Your task to perform on an android device: check android version Image 0: 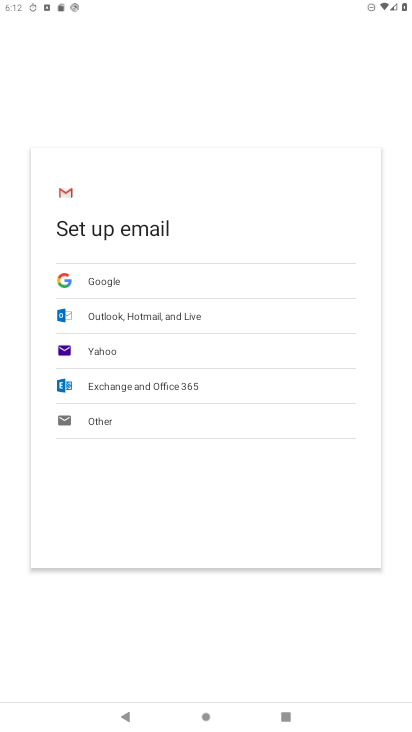
Step 0: press home button
Your task to perform on an android device: check android version Image 1: 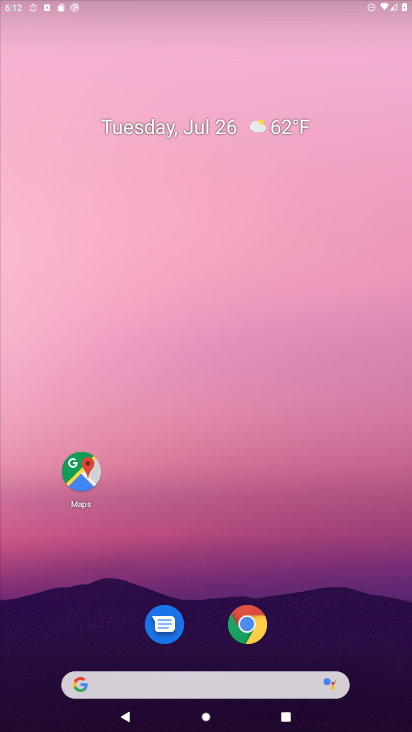
Step 1: drag from (231, 692) to (271, 20)
Your task to perform on an android device: check android version Image 2: 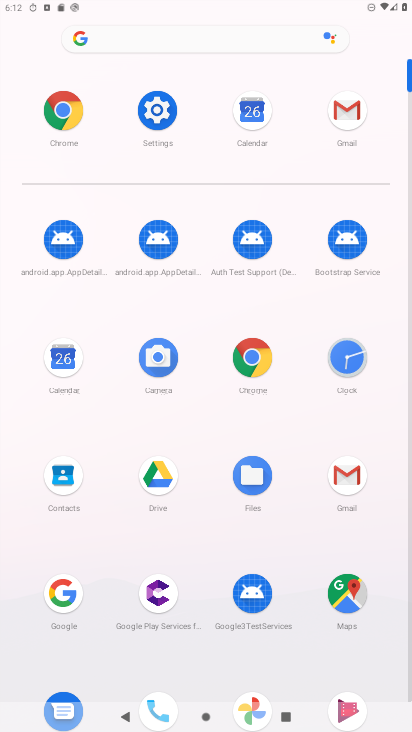
Step 2: click (160, 105)
Your task to perform on an android device: check android version Image 3: 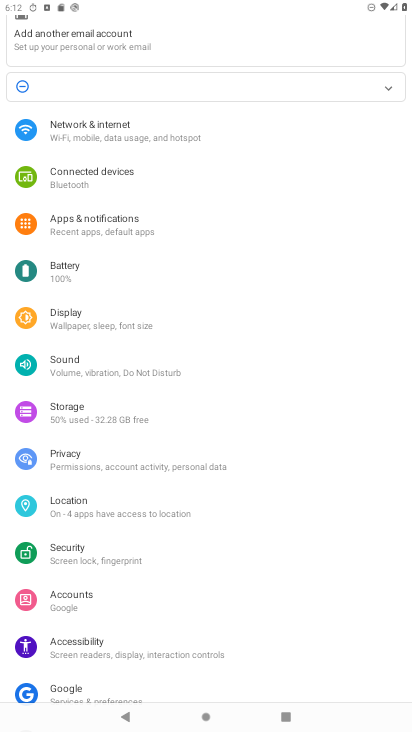
Step 3: drag from (199, 668) to (173, 82)
Your task to perform on an android device: check android version Image 4: 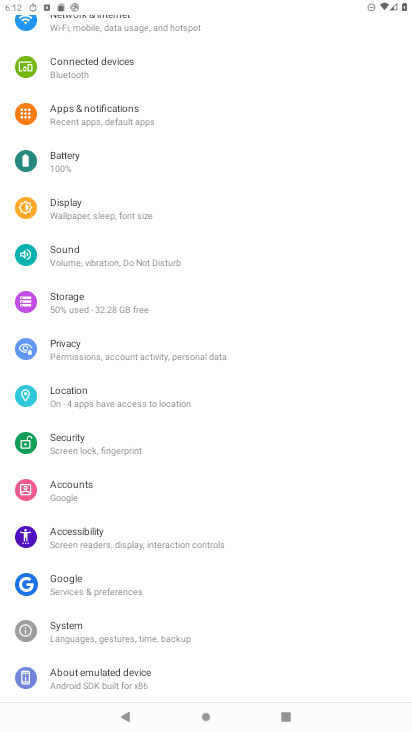
Step 4: click (149, 676)
Your task to perform on an android device: check android version Image 5: 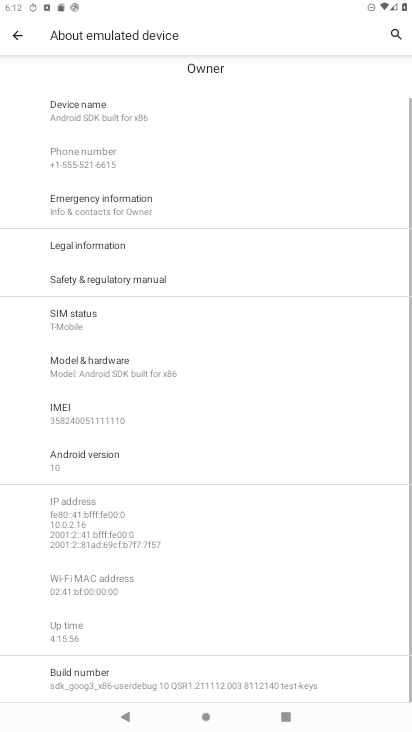
Step 5: click (102, 464)
Your task to perform on an android device: check android version Image 6: 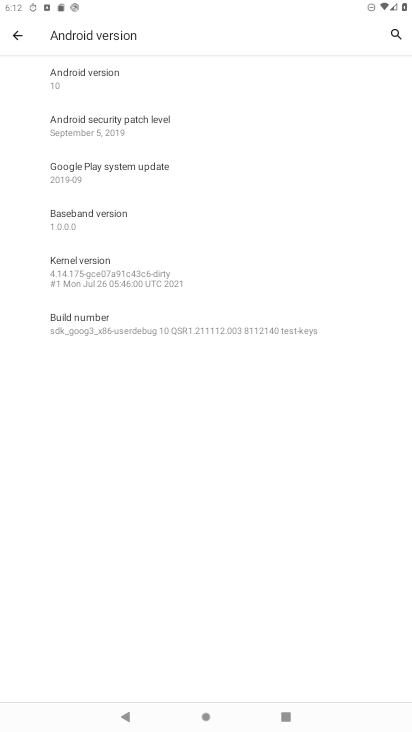
Step 6: task complete